Your task to perform on an android device: turn off javascript in the chrome app Image 0: 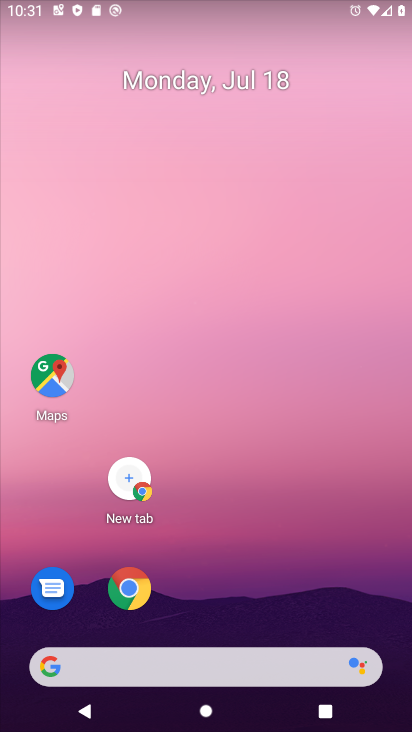
Step 0: click (150, 586)
Your task to perform on an android device: turn off javascript in the chrome app Image 1: 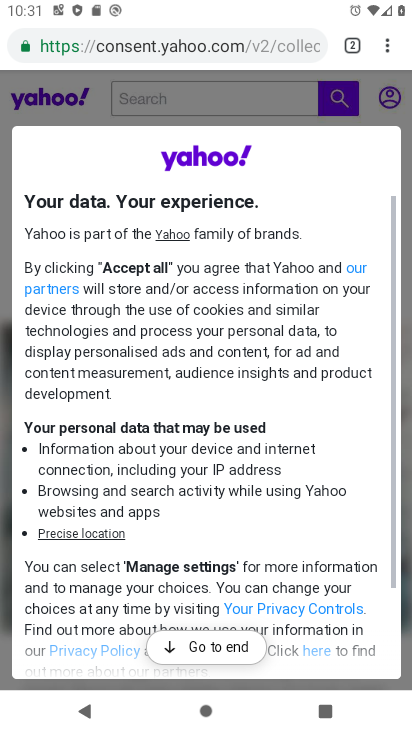
Step 1: click (391, 57)
Your task to perform on an android device: turn off javascript in the chrome app Image 2: 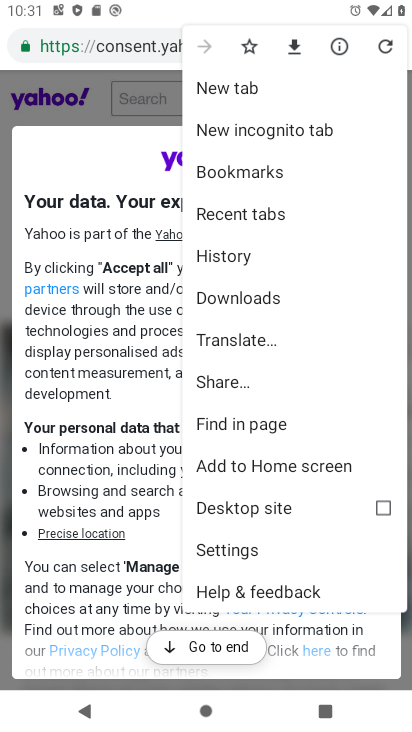
Step 2: click (235, 556)
Your task to perform on an android device: turn off javascript in the chrome app Image 3: 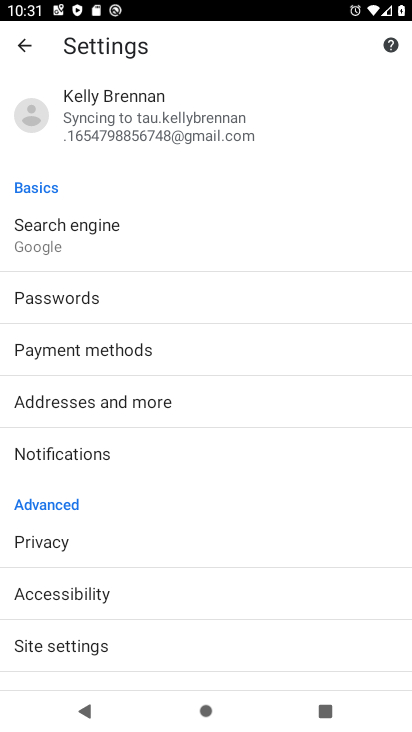
Step 3: drag from (120, 609) to (78, 22)
Your task to perform on an android device: turn off javascript in the chrome app Image 4: 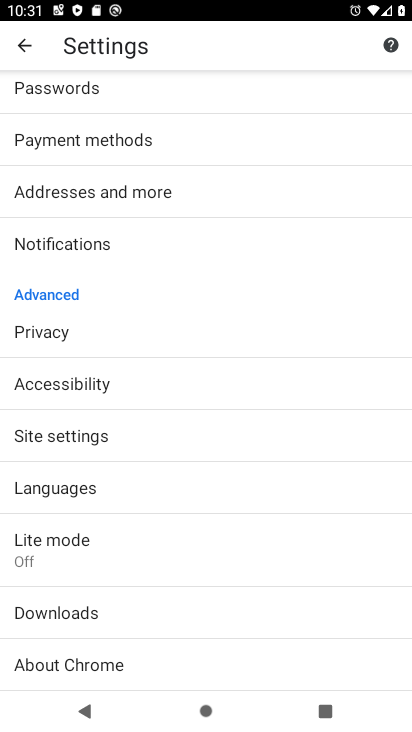
Step 4: click (74, 456)
Your task to perform on an android device: turn off javascript in the chrome app Image 5: 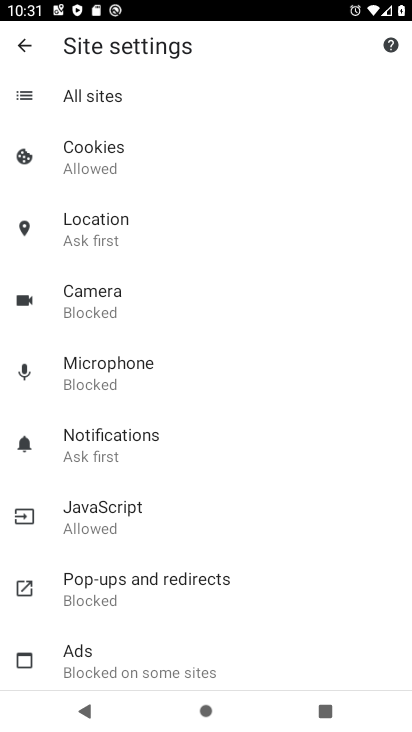
Step 5: click (92, 508)
Your task to perform on an android device: turn off javascript in the chrome app Image 6: 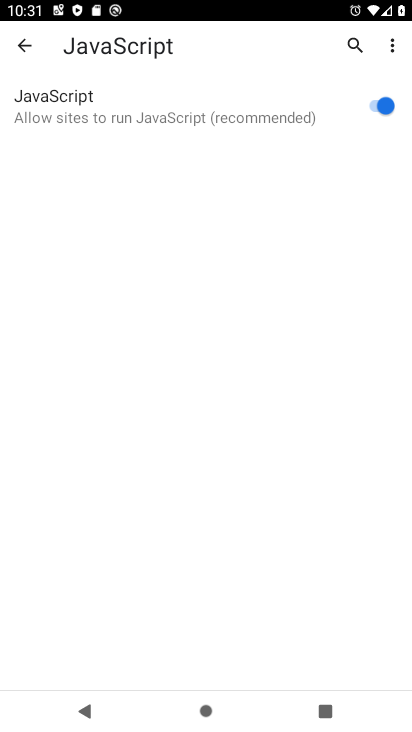
Step 6: click (380, 105)
Your task to perform on an android device: turn off javascript in the chrome app Image 7: 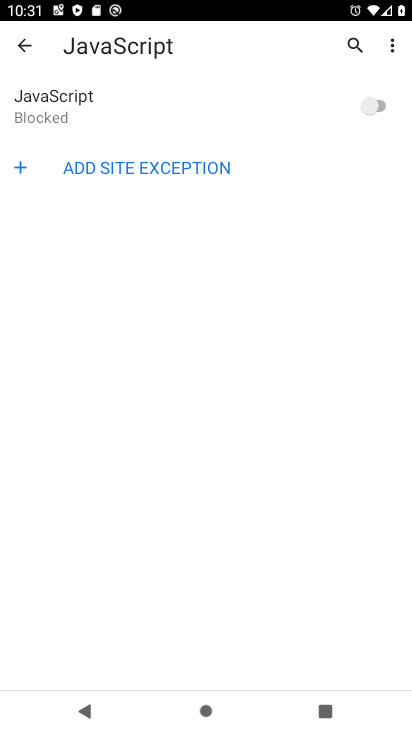
Step 7: task complete